Your task to perform on an android device: Turn on the flashlight Image 0: 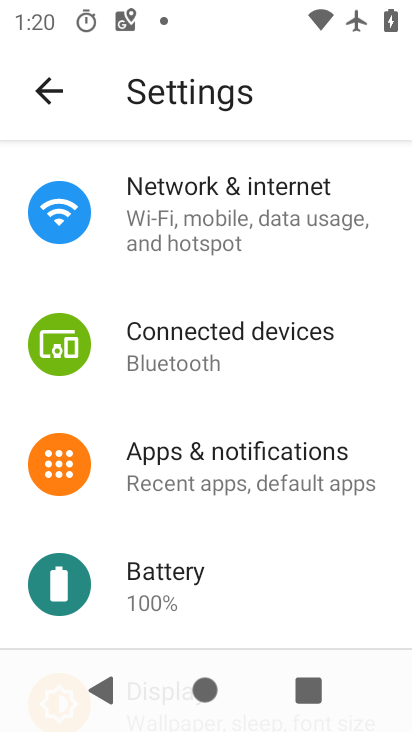
Step 0: task impossible